Your task to perform on an android device: Search for usb-c to usb-b on bestbuy.com, select the first entry, and add it to the cart. Image 0: 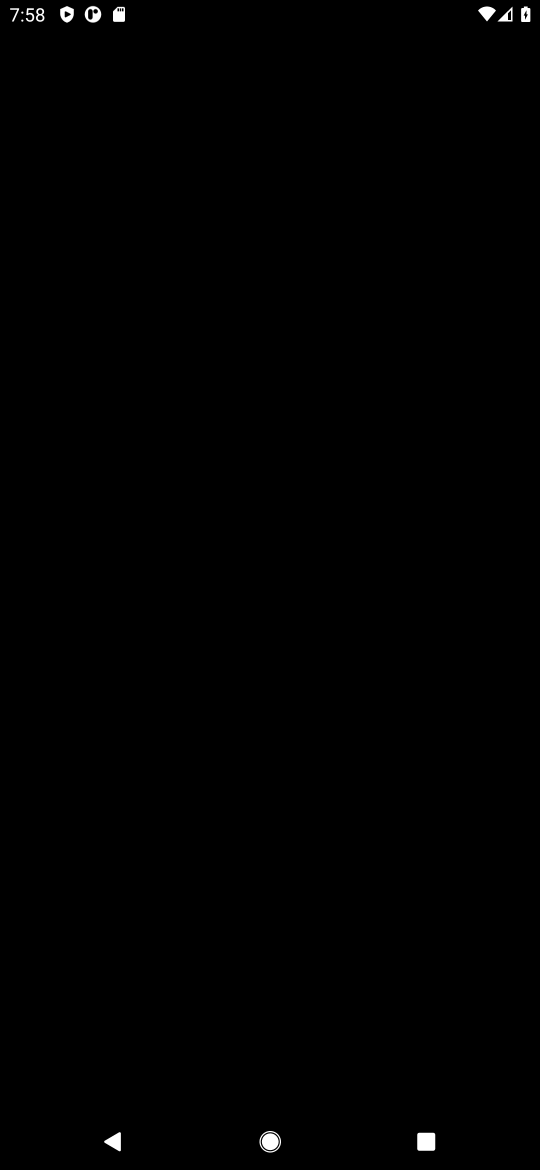
Step 0: press home button
Your task to perform on an android device: Search for usb-c to usb-b on bestbuy.com, select the first entry, and add it to the cart. Image 1: 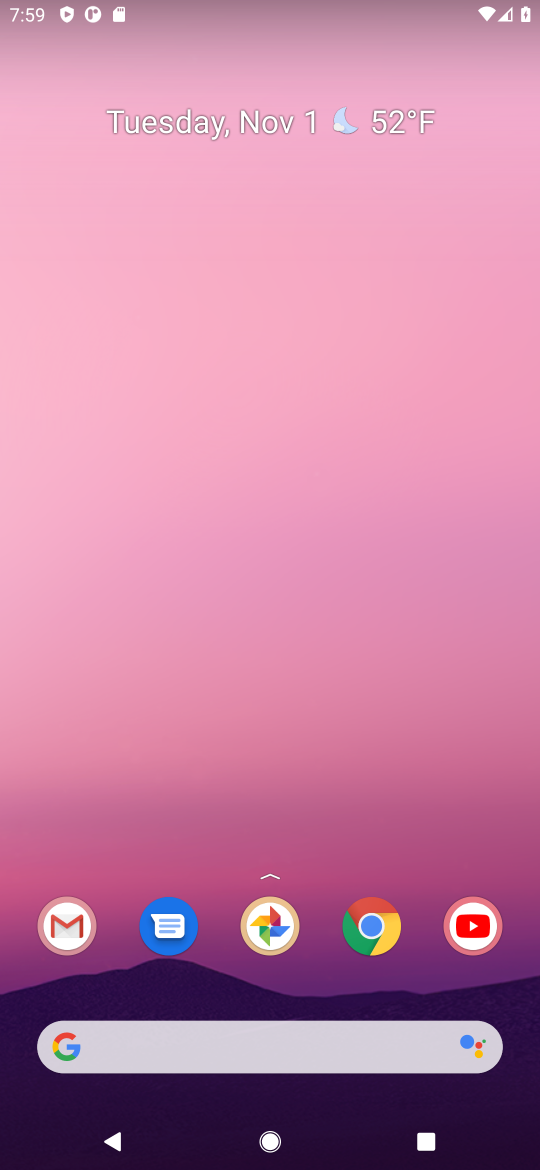
Step 1: click (341, 926)
Your task to perform on an android device: Search for usb-c to usb-b on bestbuy.com, select the first entry, and add it to the cart. Image 2: 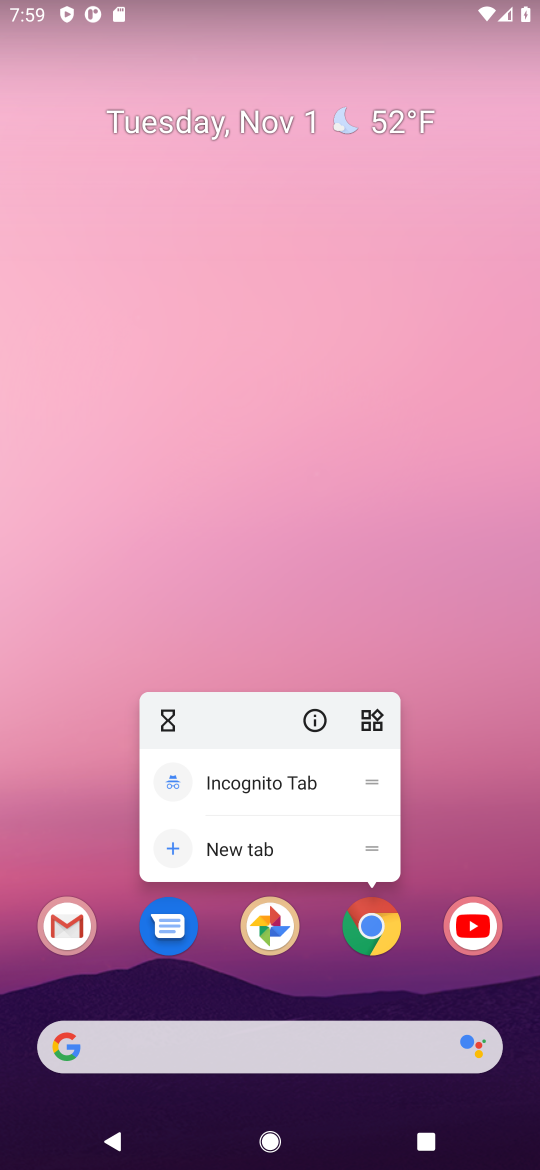
Step 2: click (392, 927)
Your task to perform on an android device: Search for usb-c to usb-b on bestbuy.com, select the first entry, and add it to the cart. Image 3: 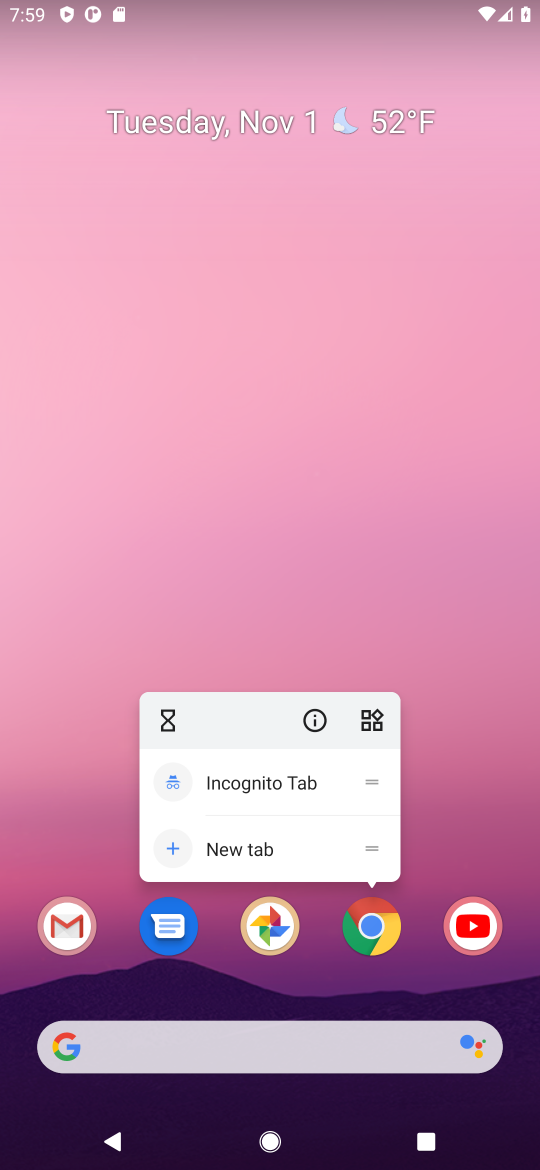
Step 3: click (381, 940)
Your task to perform on an android device: Search for usb-c to usb-b on bestbuy.com, select the first entry, and add it to the cart. Image 4: 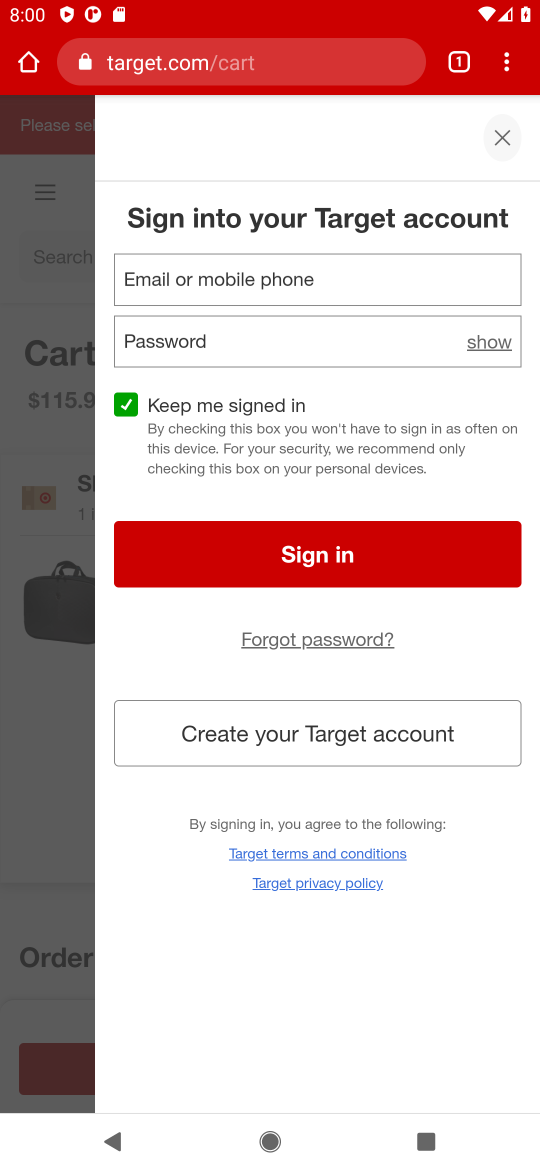
Step 4: press home button
Your task to perform on an android device: Search for usb-c to usb-b on bestbuy.com, select the first entry, and add it to the cart. Image 5: 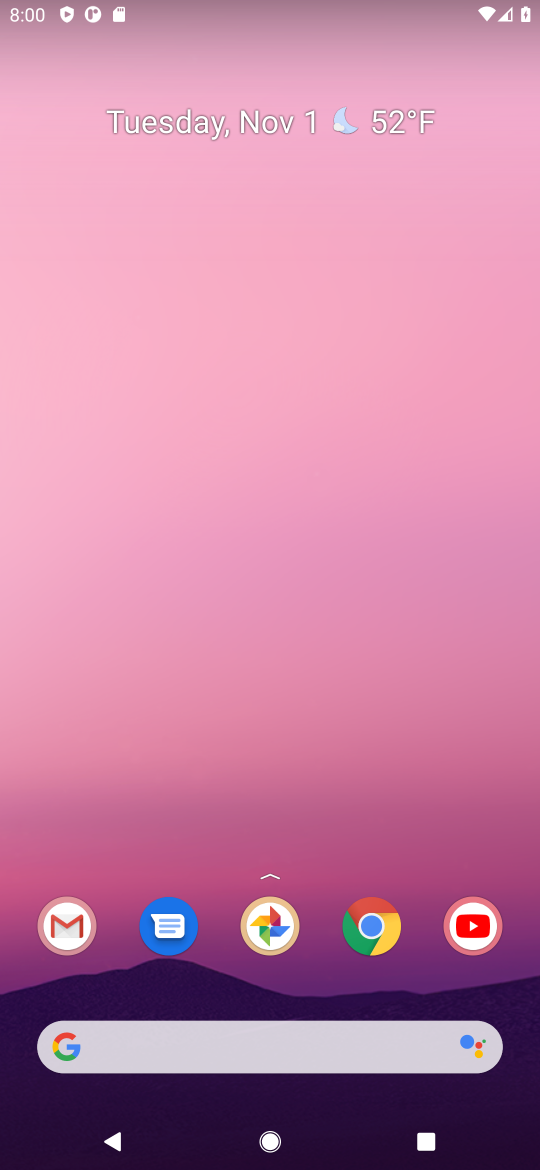
Step 5: click (365, 921)
Your task to perform on an android device: Search for usb-c to usb-b on bestbuy.com, select the first entry, and add it to the cart. Image 6: 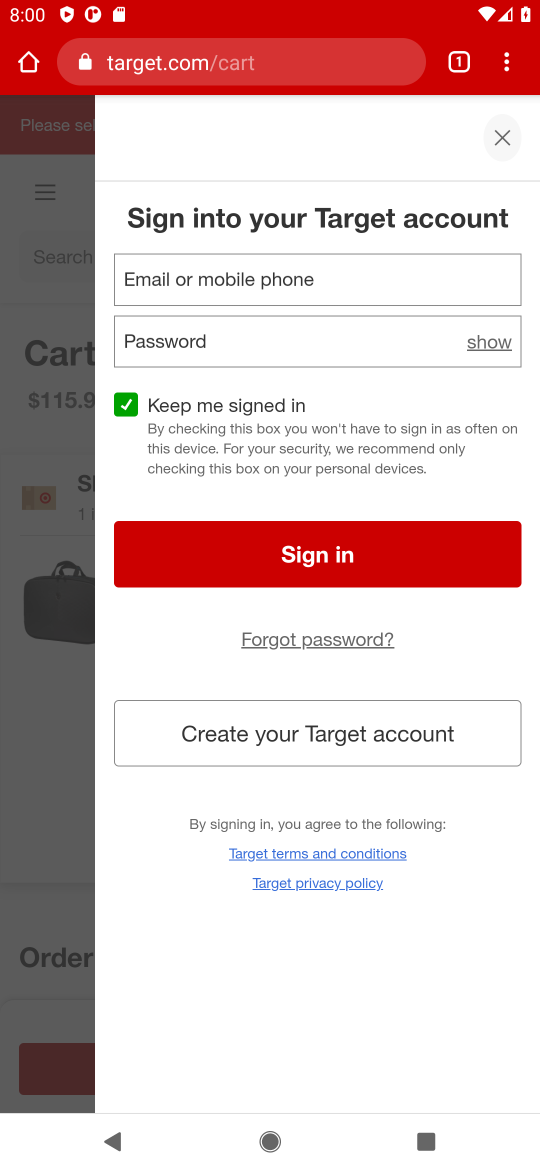
Step 6: click (217, 62)
Your task to perform on an android device: Search for usb-c to usb-b on bestbuy.com, select the first entry, and add it to the cart. Image 7: 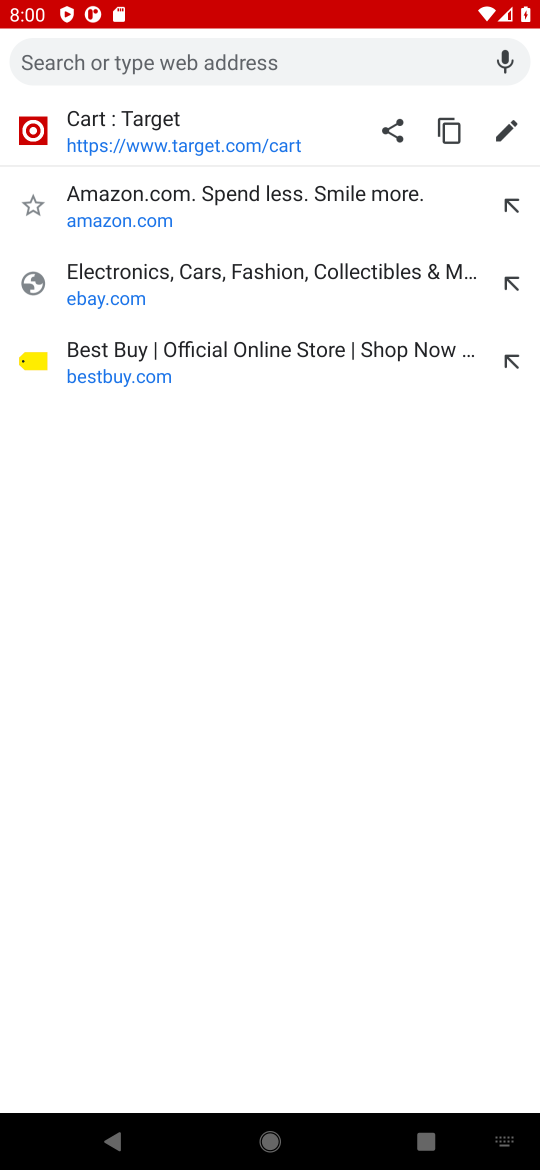
Step 7: click (99, 368)
Your task to perform on an android device: Search for usb-c to usb-b on bestbuy.com, select the first entry, and add it to the cart. Image 8: 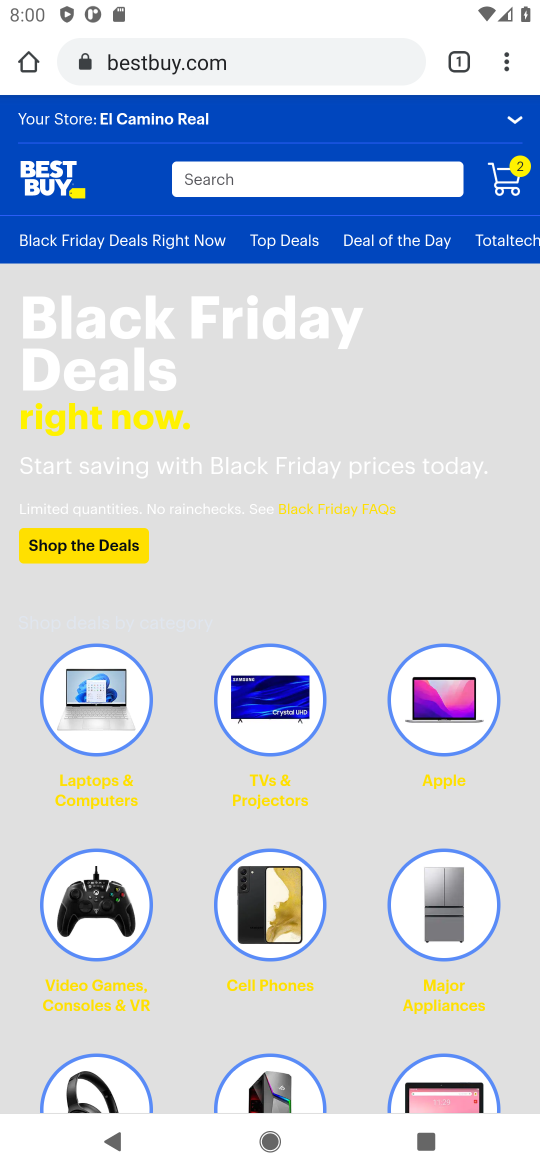
Step 8: click (249, 191)
Your task to perform on an android device: Search for usb-c to usb-b on bestbuy.com, select the first entry, and add it to the cart. Image 9: 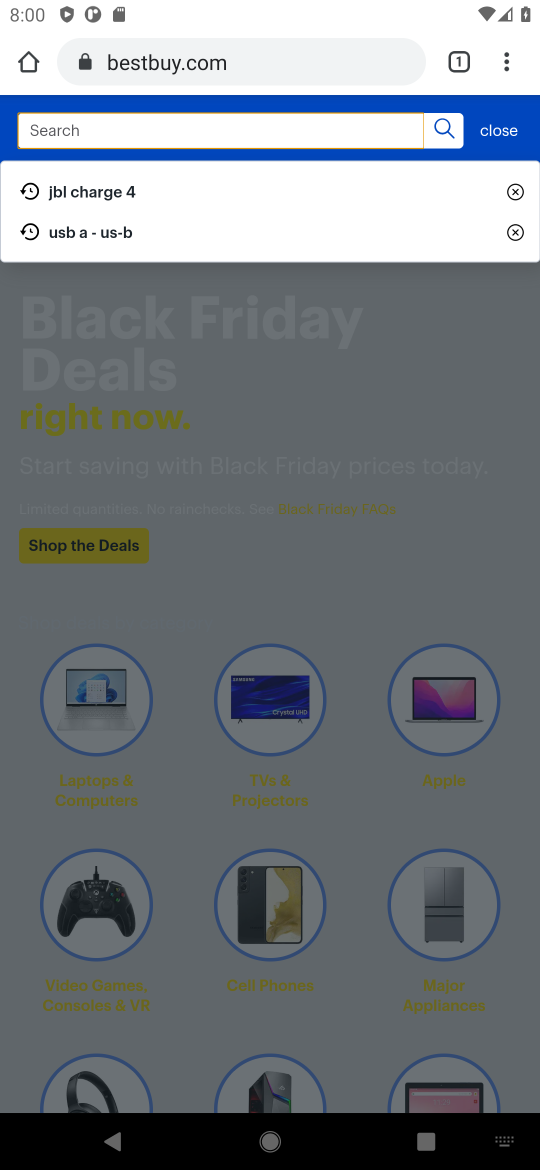
Step 9: type "usb -c to usb - b"
Your task to perform on an android device: Search for usb-c to usb-b on bestbuy.com, select the first entry, and add it to the cart. Image 10: 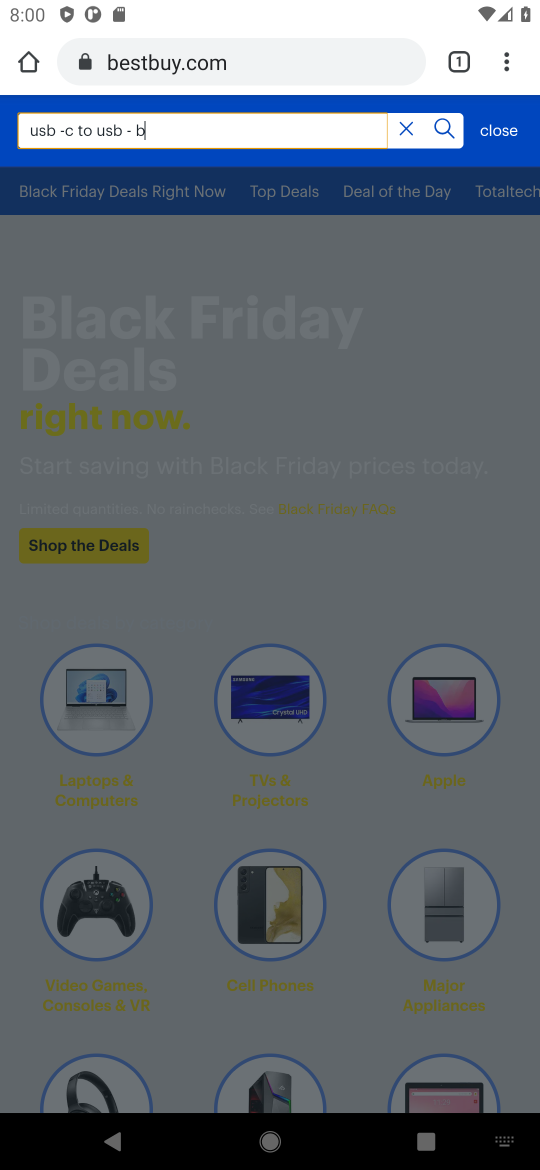
Step 10: click (452, 124)
Your task to perform on an android device: Search for usb-c to usb-b on bestbuy.com, select the first entry, and add it to the cart. Image 11: 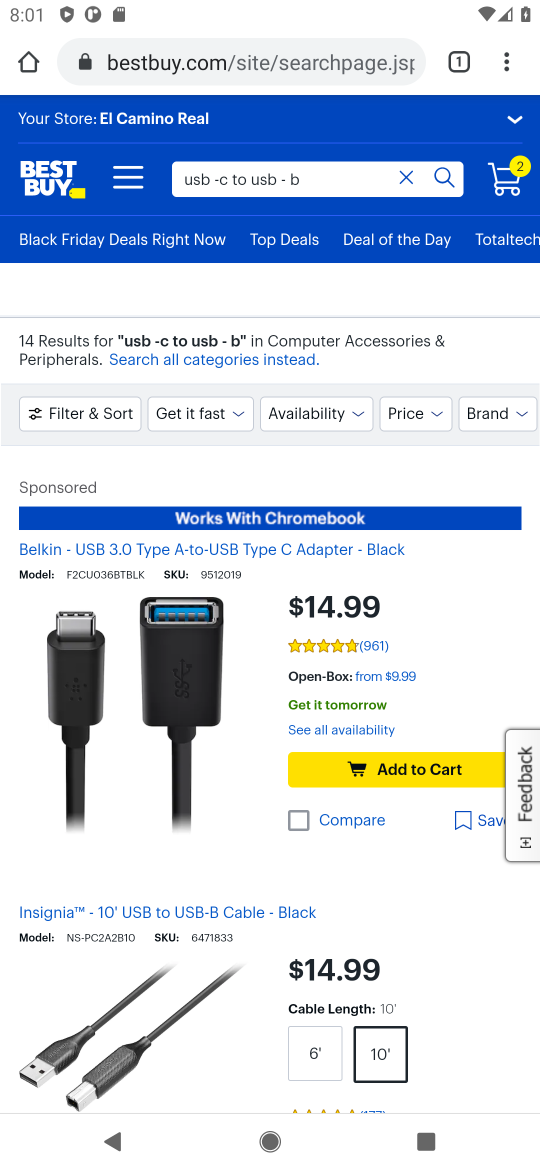
Step 11: drag from (358, 810) to (349, 315)
Your task to perform on an android device: Search for usb-c to usb-b on bestbuy.com, select the first entry, and add it to the cart. Image 12: 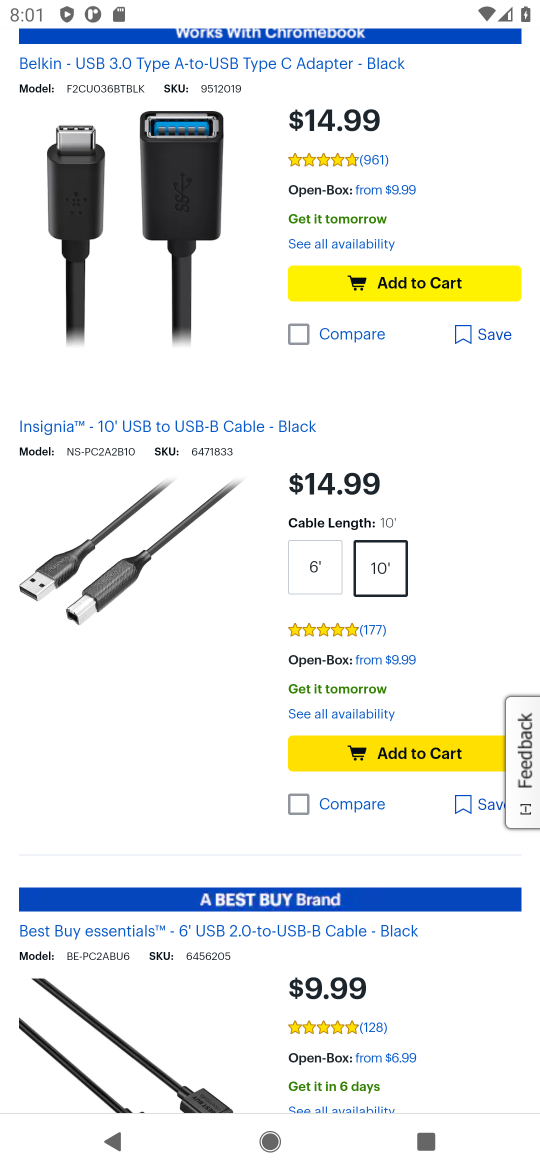
Step 12: drag from (200, 1015) to (258, 373)
Your task to perform on an android device: Search for usb-c to usb-b on bestbuy.com, select the first entry, and add it to the cart. Image 13: 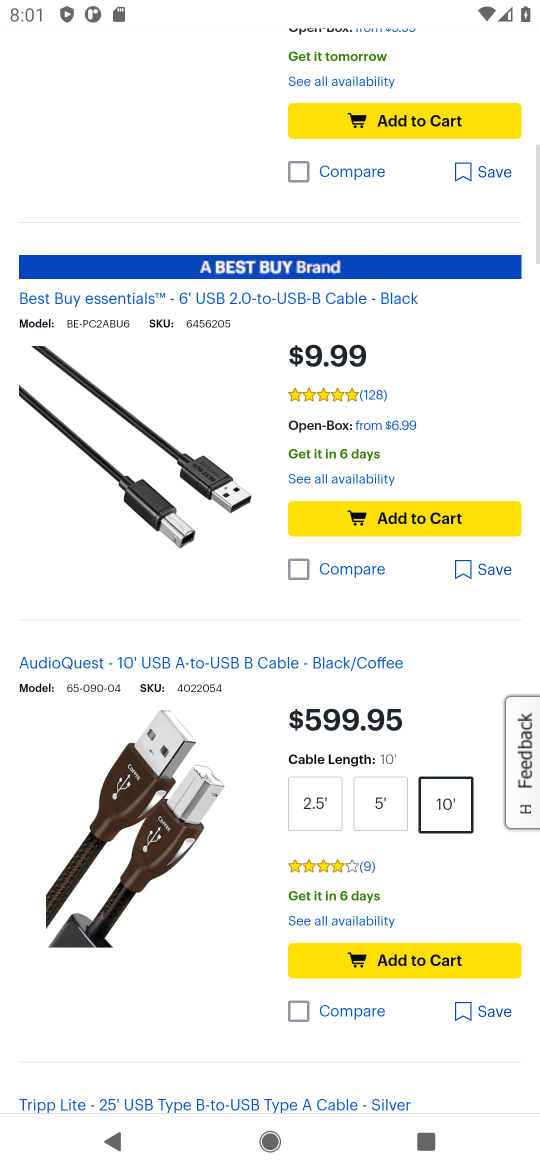
Step 13: drag from (133, 945) to (291, 272)
Your task to perform on an android device: Search for usb-c to usb-b on bestbuy.com, select the first entry, and add it to the cart. Image 14: 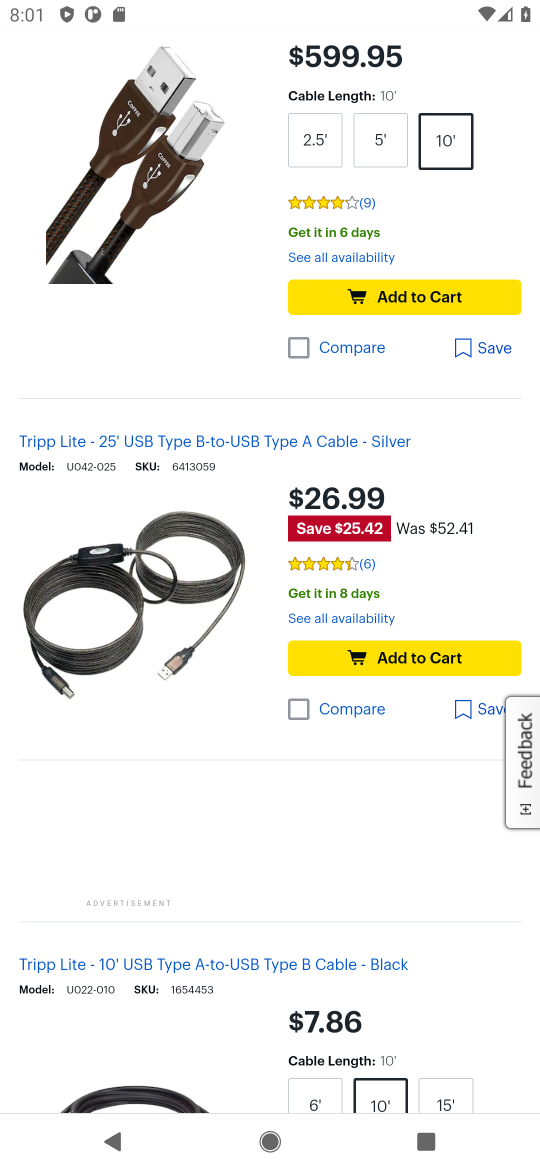
Step 14: drag from (185, 818) to (244, 383)
Your task to perform on an android device: Search for usb-c to usb-b on bestbuy.com, select the first entry, and add it to the cart. Image 15: 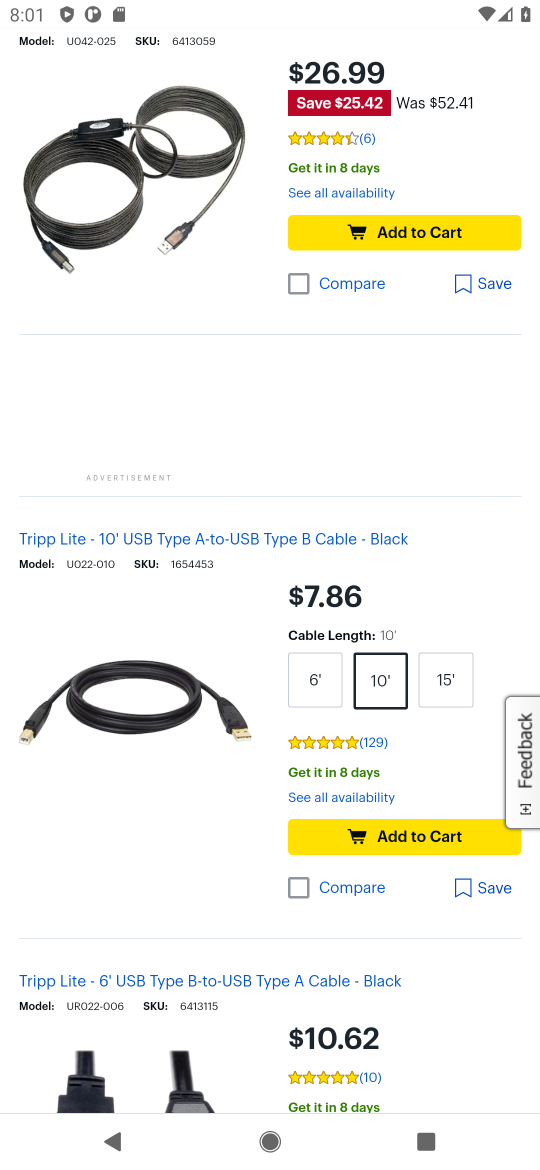
Step 15: drag from (126, 1041) to (247, 414)
Your task to perform on an android device: Search for usb-c to usb-b on bestbuy.com, select the first entry, and add it to the cart. Image 16: 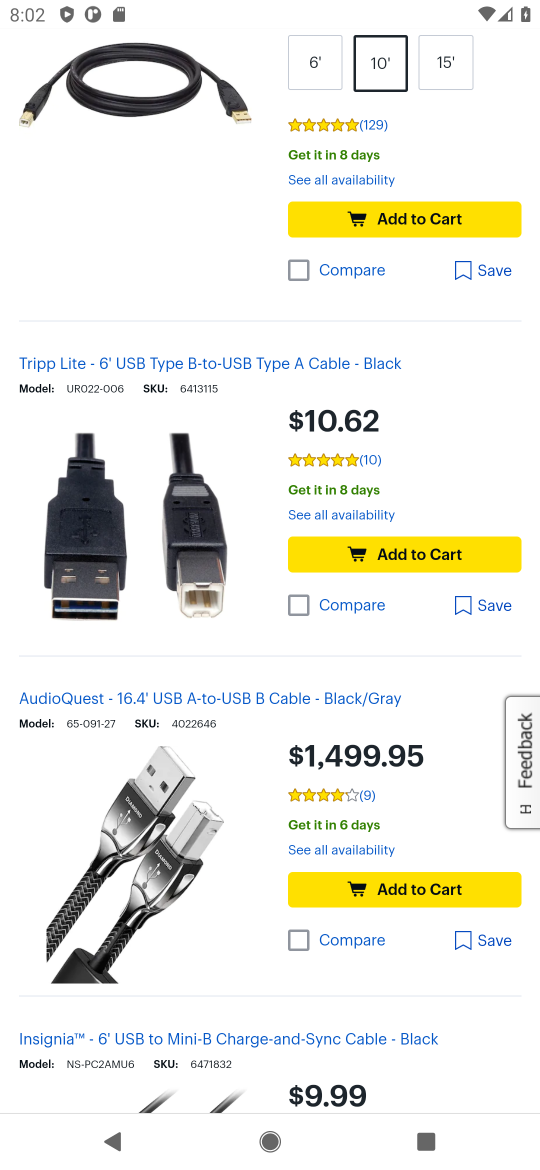
Step 16: drag from (251, 816) to (299, 551)
Your task to perform on an android device: Search for usb-c to usb-b on bestbuy.com, select the first entry, and add it to the cart. Image 17: 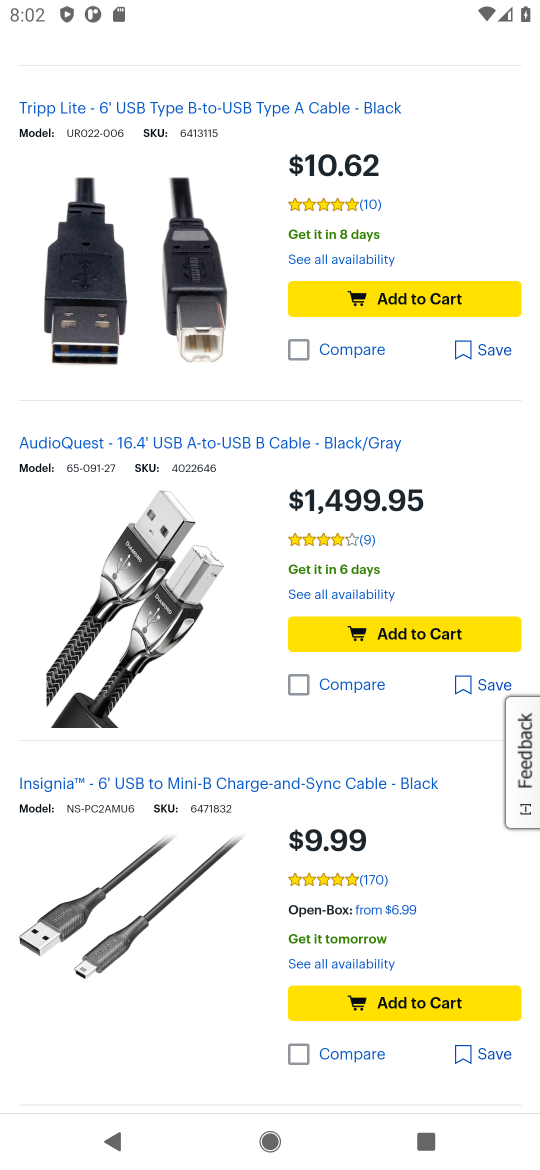
Step 17: drag from (114, 884) to (249, 436)
Your task to perform on an android device: Search for usb-c to usb-b on bestbuy.com, select the first entry, and add it to the cart. Image 18: 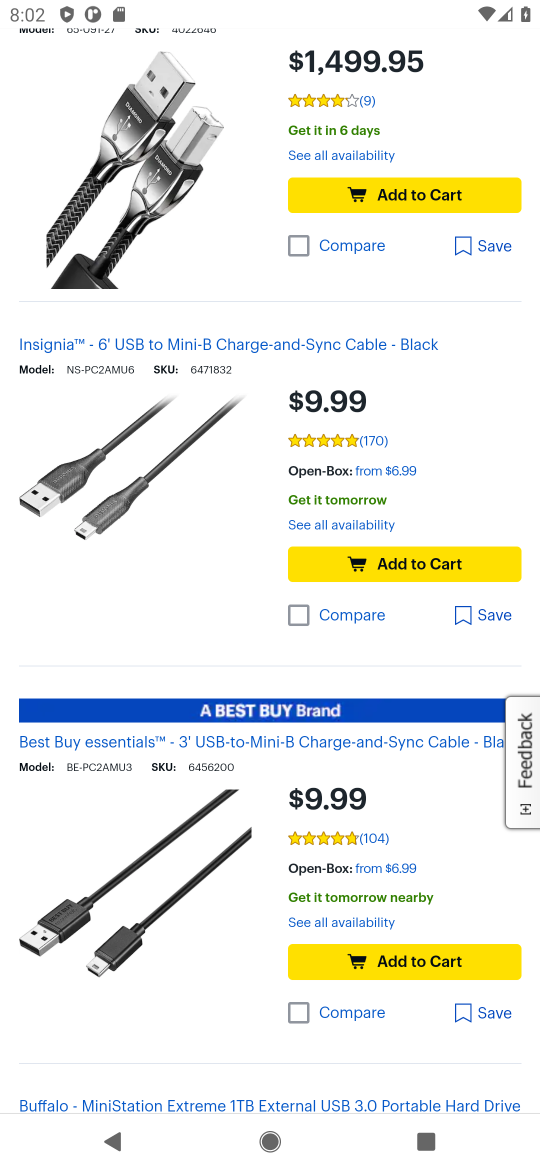
Step 18: drag from (299, 987) to (181, 430)
Your task to perform on an android device: Search for usb-c to usb-b on bestbuy.com, select the first entry, and add it to the cart. Image 19: 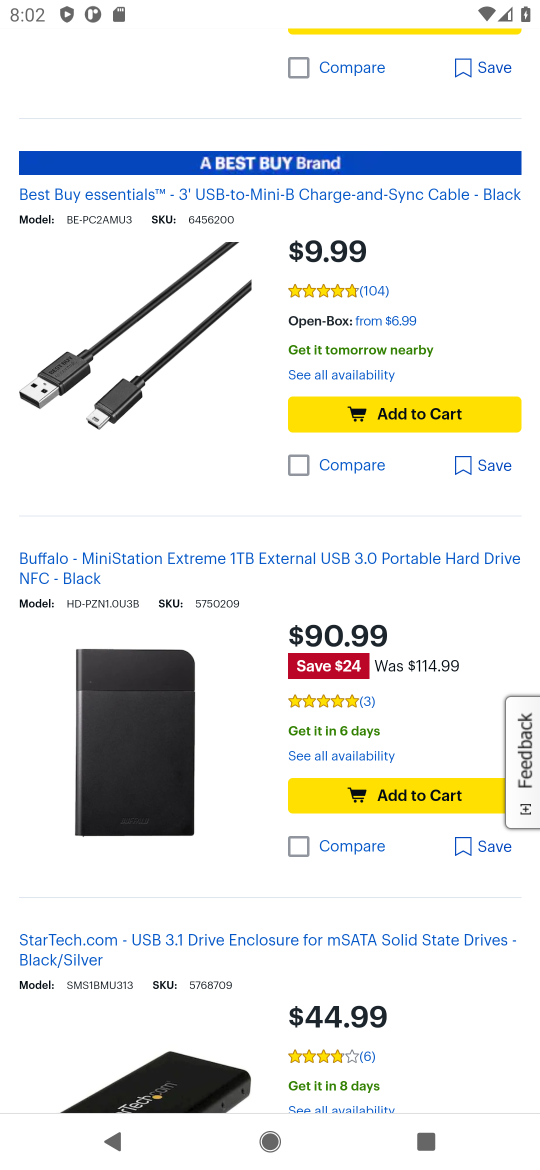
Step 19: drag from (345, 1057) to (323, 518)
Your task to perform on an android device: Search for usb-c to usb-b on bestbuy.com, select the first entry, and add it to the cart. Image 20: 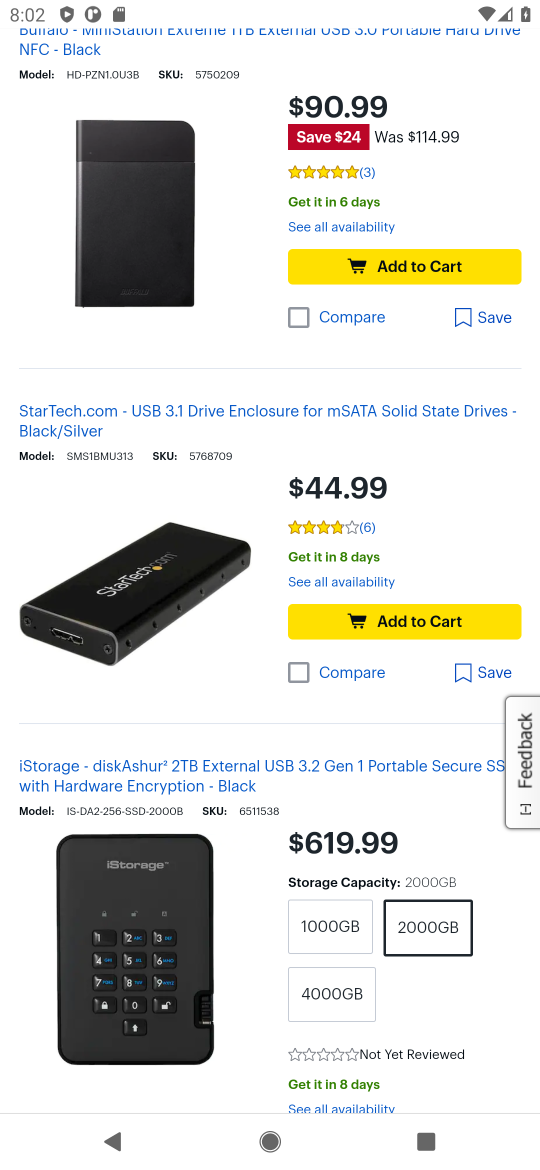
Step 20: drag from (131, 1029) to (146, 773)
Your task to perform on an android device: Search for usb-c to usb-b on bestbuy.com, select the first entry, and add it to the cart. Image 21: 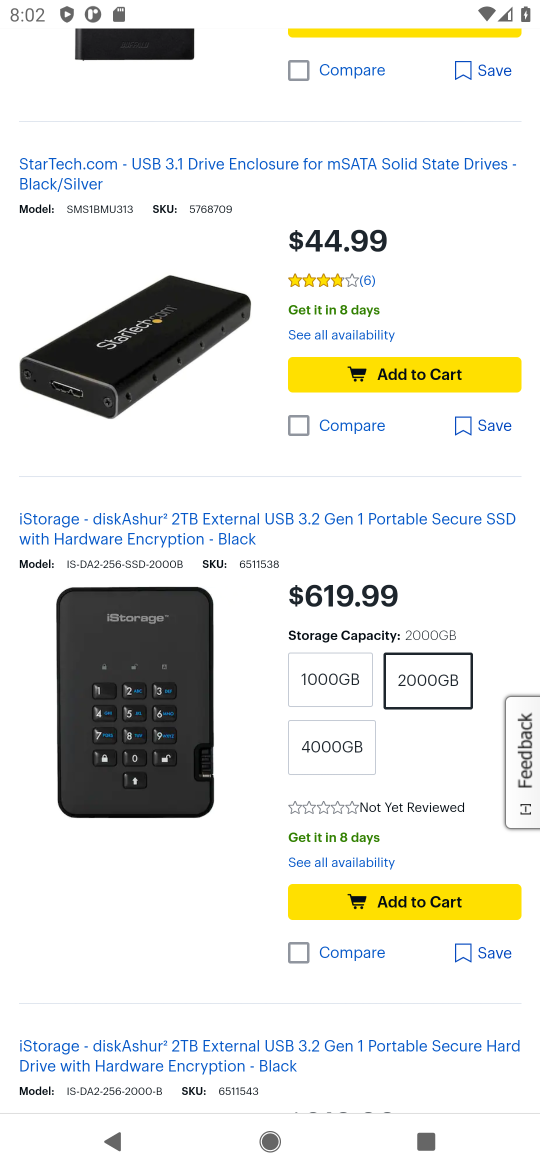
Step 21: drag from (223, 1061) to (200, 671)
Your task to perform on an android device: Search for usb-c to usb-b on bestbuy.com, select the first entry, and add it to the cart. Image 22: 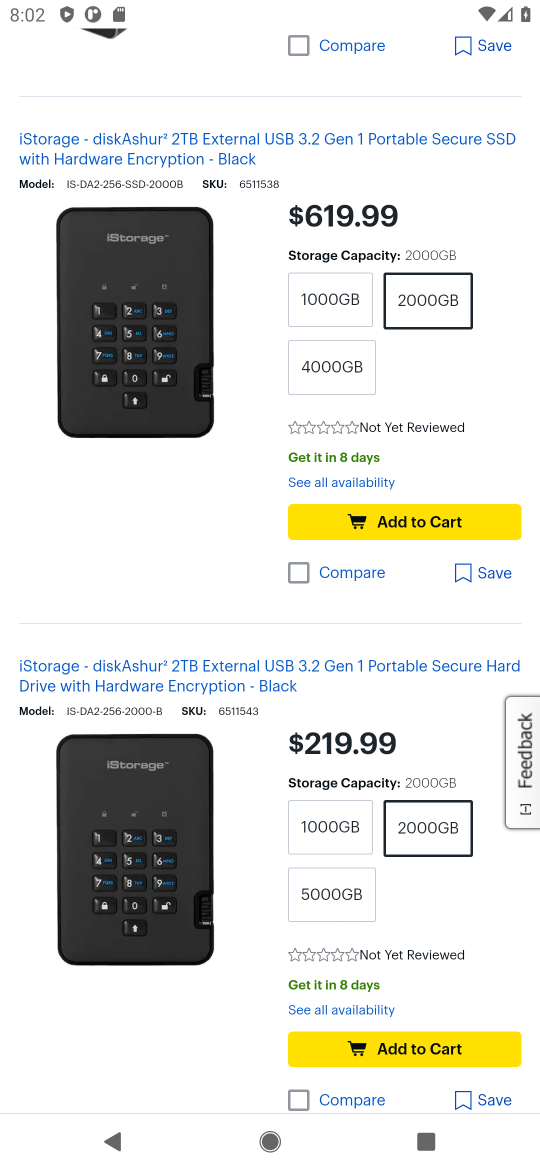
Step 22: drag from (154, 855) to (237, 1163)
Your task to perform on an android device: Search for usb-c to usb-b on bestbuy.com, select the first entry, and add it to the cart. Image 23: 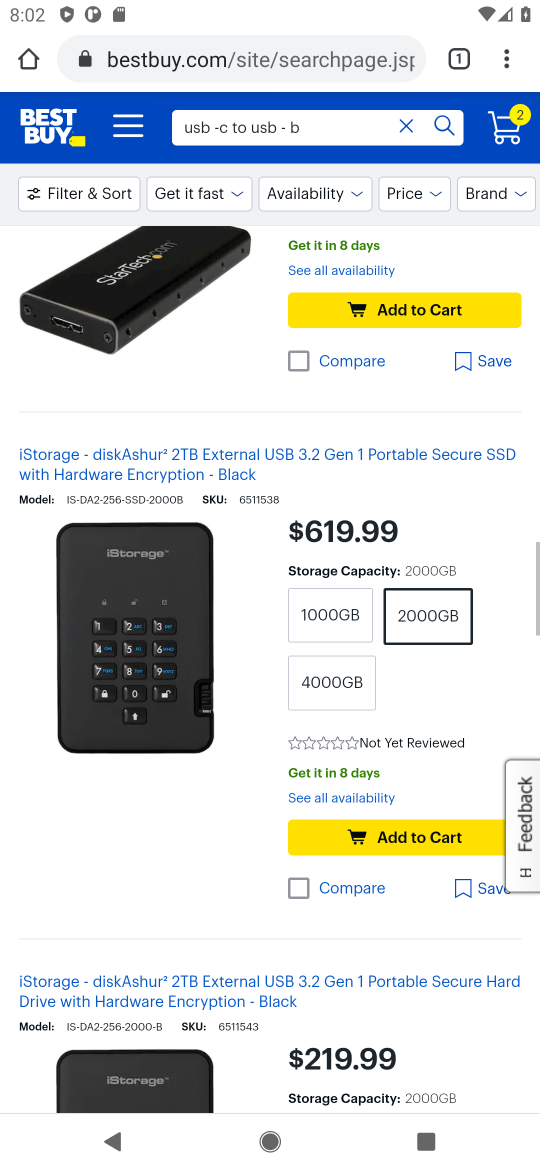
Step 23: drag from (360, 431) to (252, 1138)
Your task to perform on an android device: Search for usb-c to usb-b on bestbuy.com, select the first entry, and add it to the cart. Image 24: 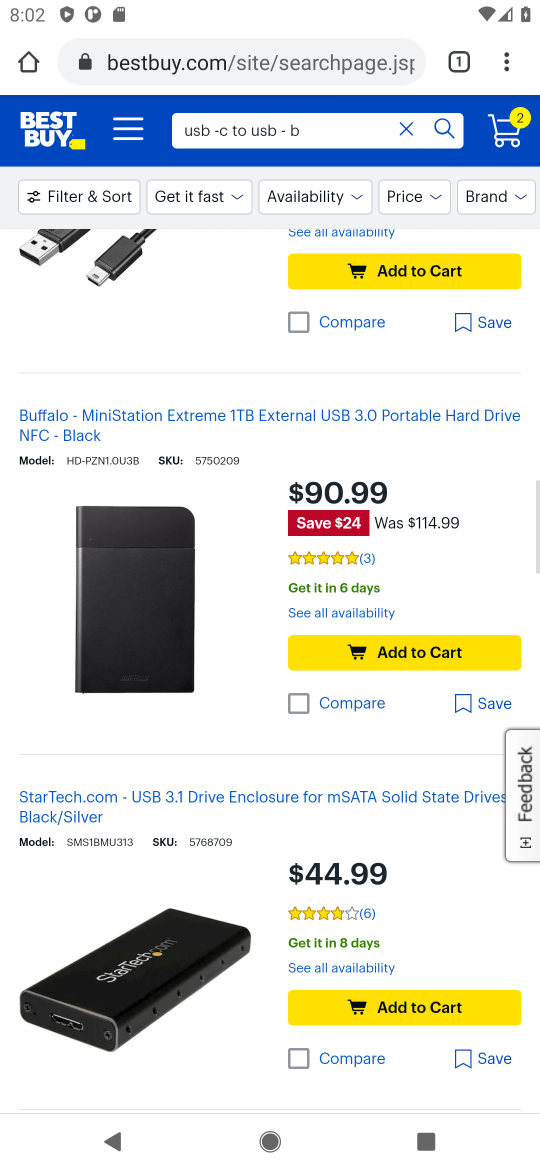
Step 24: drag from (240, 473) to (47, 931)
Your task to perform on an android device: Search for usb-c to usb-b on bestbuy.com, select the first entry, and add it to the cart. Image 25: 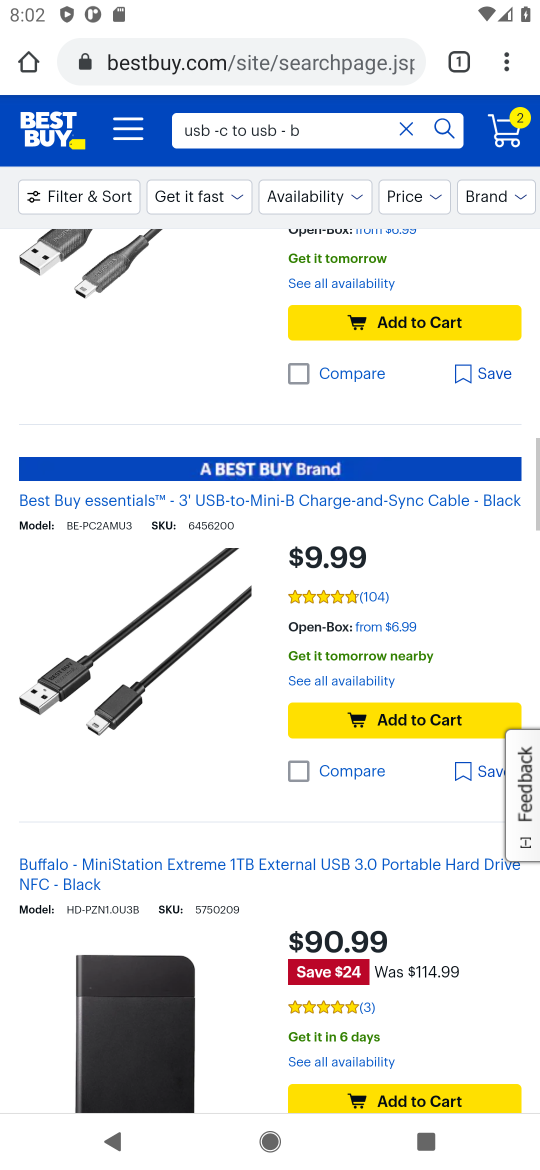
Step 25: drag from (166, 428) to (180, 977)
Your task to perform on an android device: Search for usb-c to usb-b on bestbuy.com, select the first entry, and add it to the cart. Image 26: 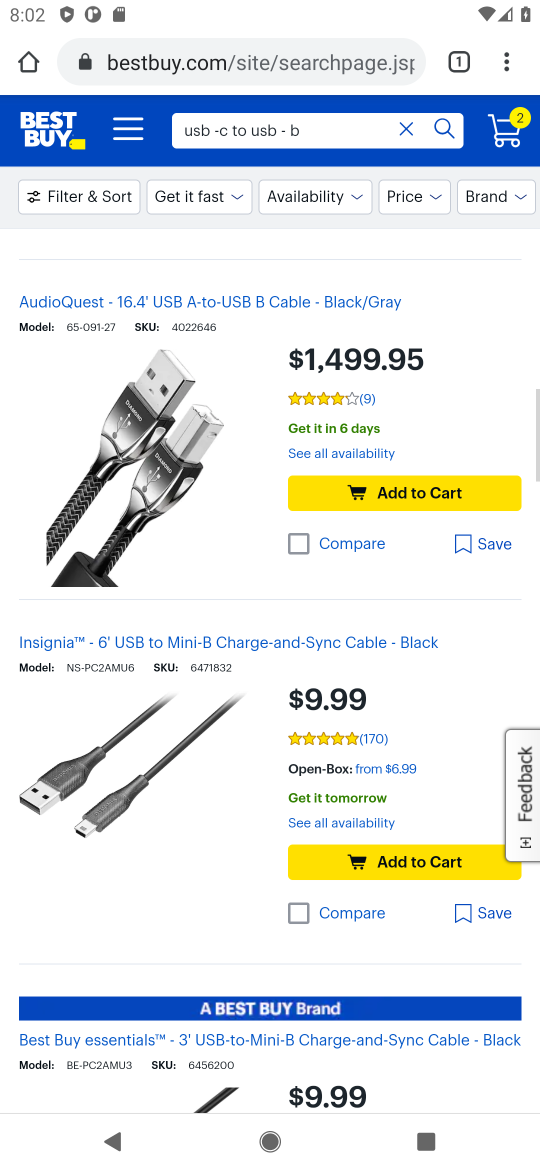
Step 26: drag from (200, 375) to (180, 995)
Your task to perform on an android device: Search for usb-c to usb-b on bestbuy.com, select the first entry, and add it to the cart. Image 27: 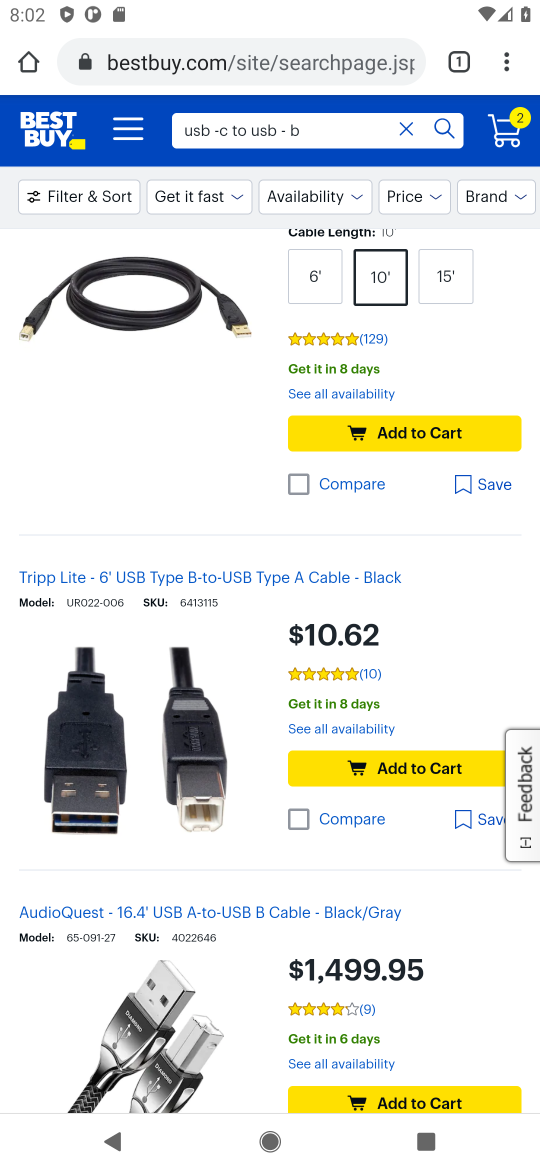
Step 27: drag from (225, 491) to (179, 918)
Your task to perform on an android device: Search for usb-c to usb-b on bestbuy.com, select the first entry, and add it to the cart. Image 28: 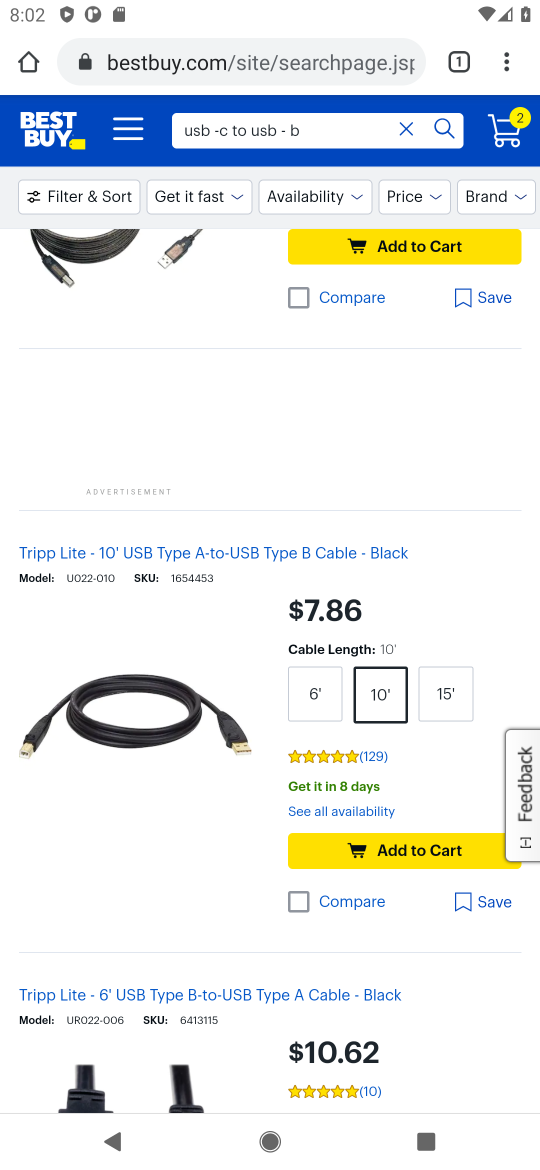
Step 28: drag from (132, 368) to (121, 759)
Your task to perform on an android device: Search for usb-c to usb-b on bestbuy.com, select the first entry, and add it to the cart. Image 29: 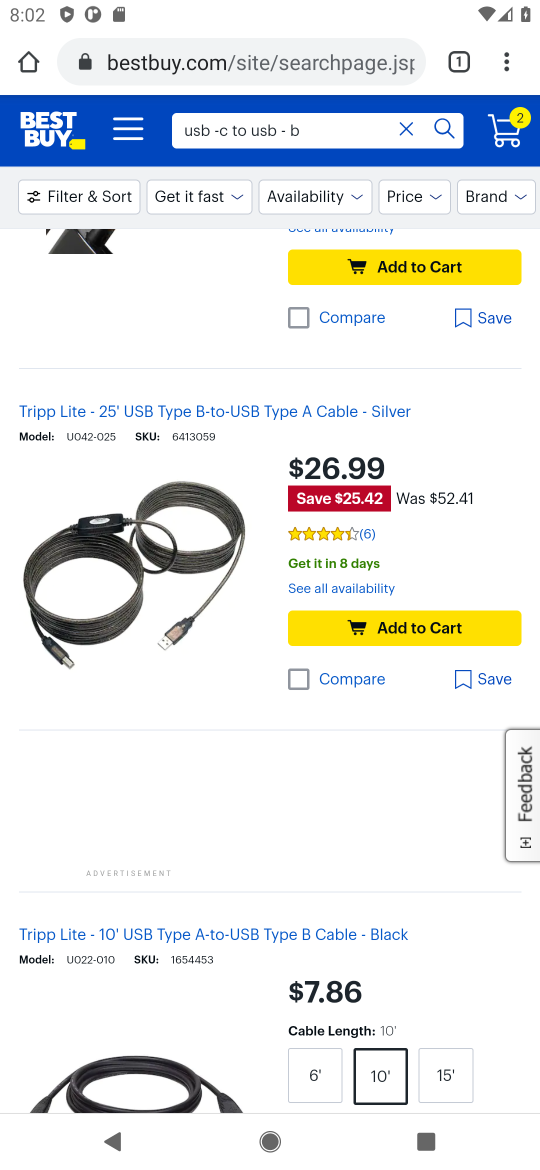
Step 29: click (43, 521)
Your task to perform on an android device: Search for usb-c to usb-b on bestbuy.com, select the first entry, and add it to the cart. Image 30: 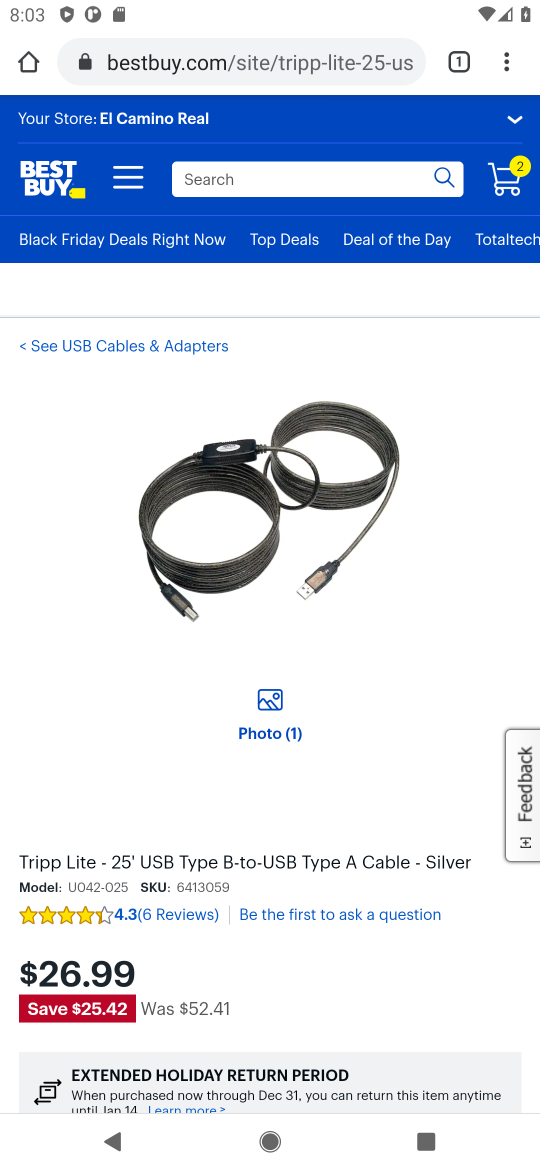
Step 30: drag from (243, 946) to (245, 531)
Your task to perform on an android device: Search for usb-c to usb-b on bestbuy.com, select the first entry, and add it to the cart. Image 31: 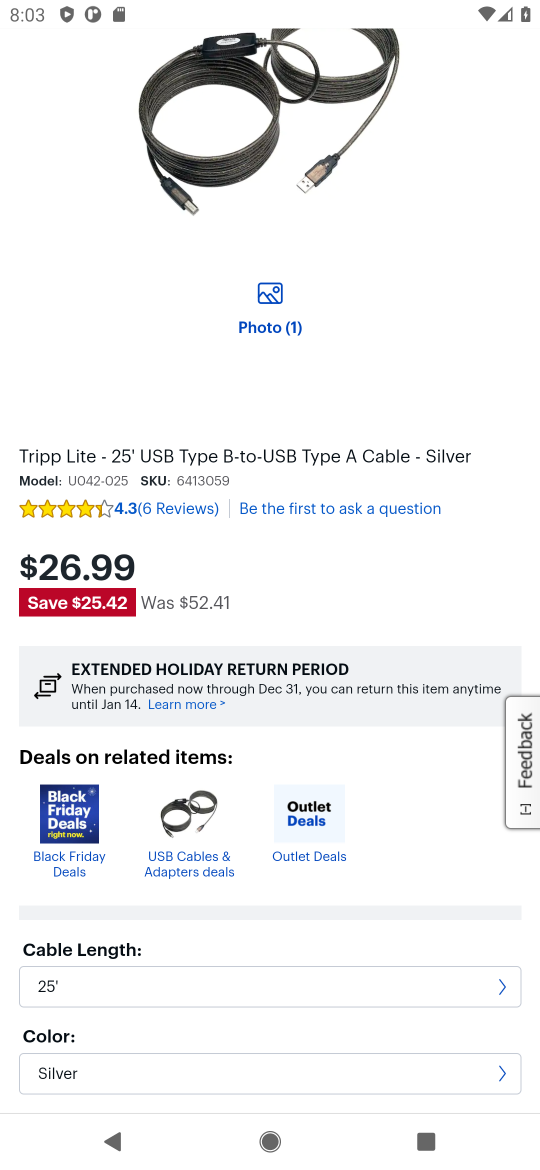
Step 31: drag from (186, 960) to (185, 547)
Your task to perform on an android device: Search for usb-c to usb-b on bestbuy.com, select the first entry, and add it to the cart. Image 32: 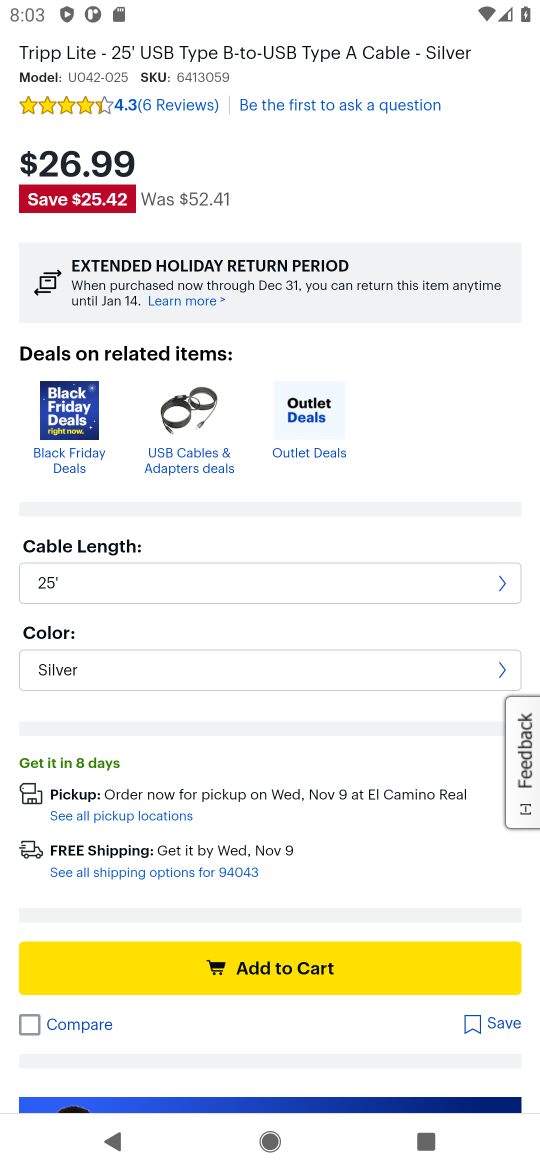
Step 32: click (297, 966)
Your task to perform on an android device: Search for usb-c to usb-b on bestbuy.com, select the first entry, and add it to the cart. Image 33: 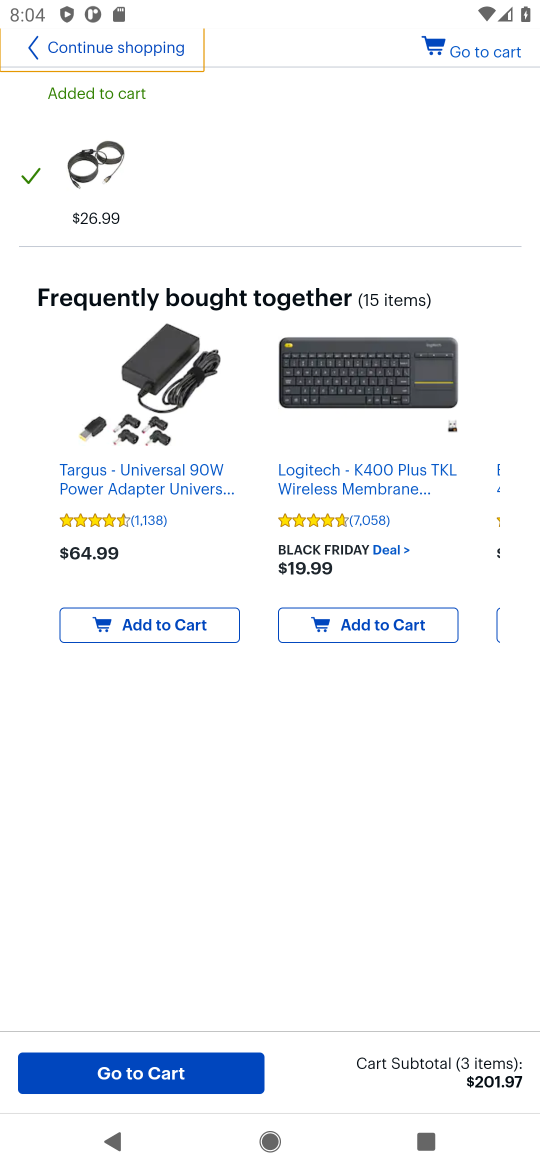
Step 33: click (64, 1076)
Your task to perform on an android device: Search for usb-c to usb-b on bestbuy.com, select the first entry, and add it to the cart. Image 34: 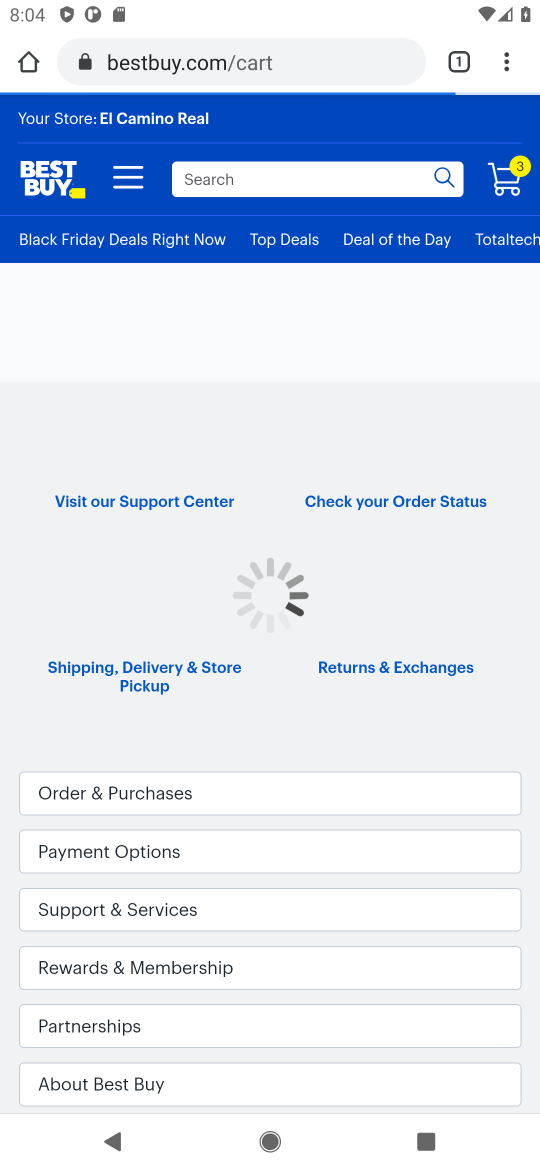
Step 34: task complete